Your task to perform on an android device: Open settings Image 0: 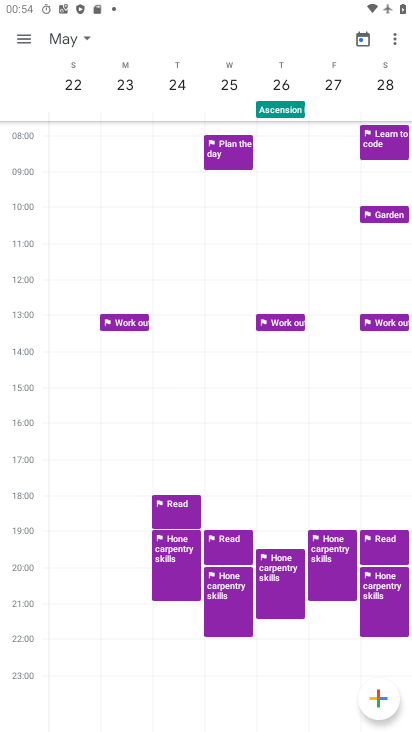
Step 0: press home button
Your task to perform on an android device: Open settings Image 1: 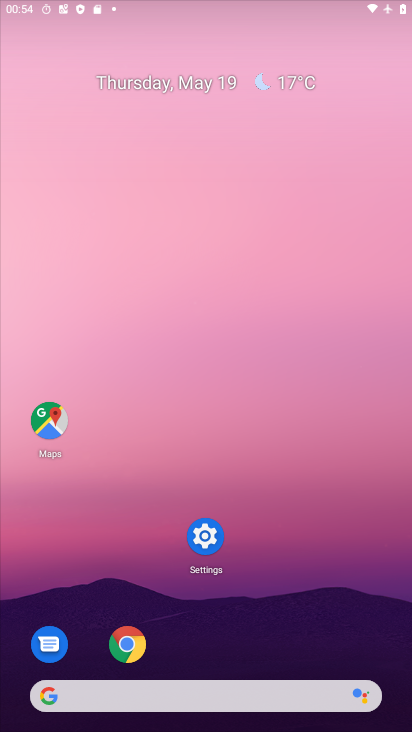
Step 1: drag from (310, 595) to (296, 77)
Your task to perform on an android device: Open settings Image 2: 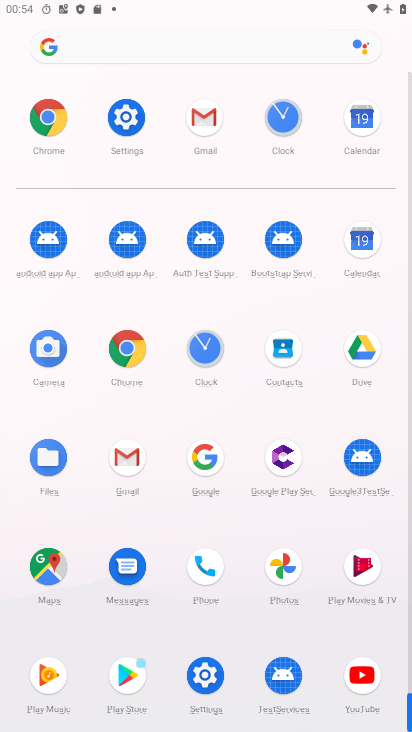
Step 2: click (129, 111)
Your task to perform on an android device: Open settings Image 3: 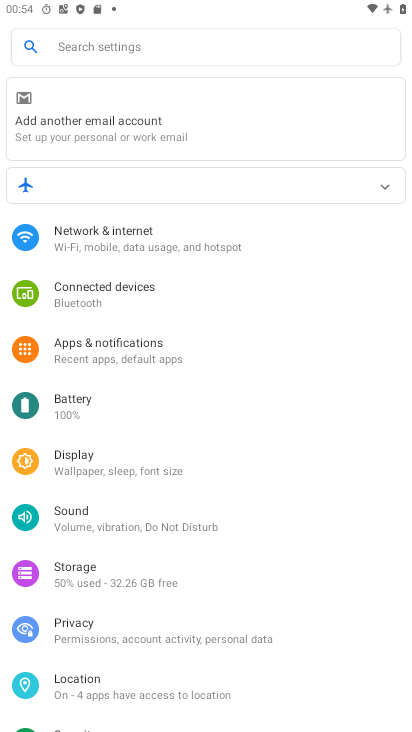
Step 3: task complete